Your task to perform on an android device: find photos in the google photos app Image 0: 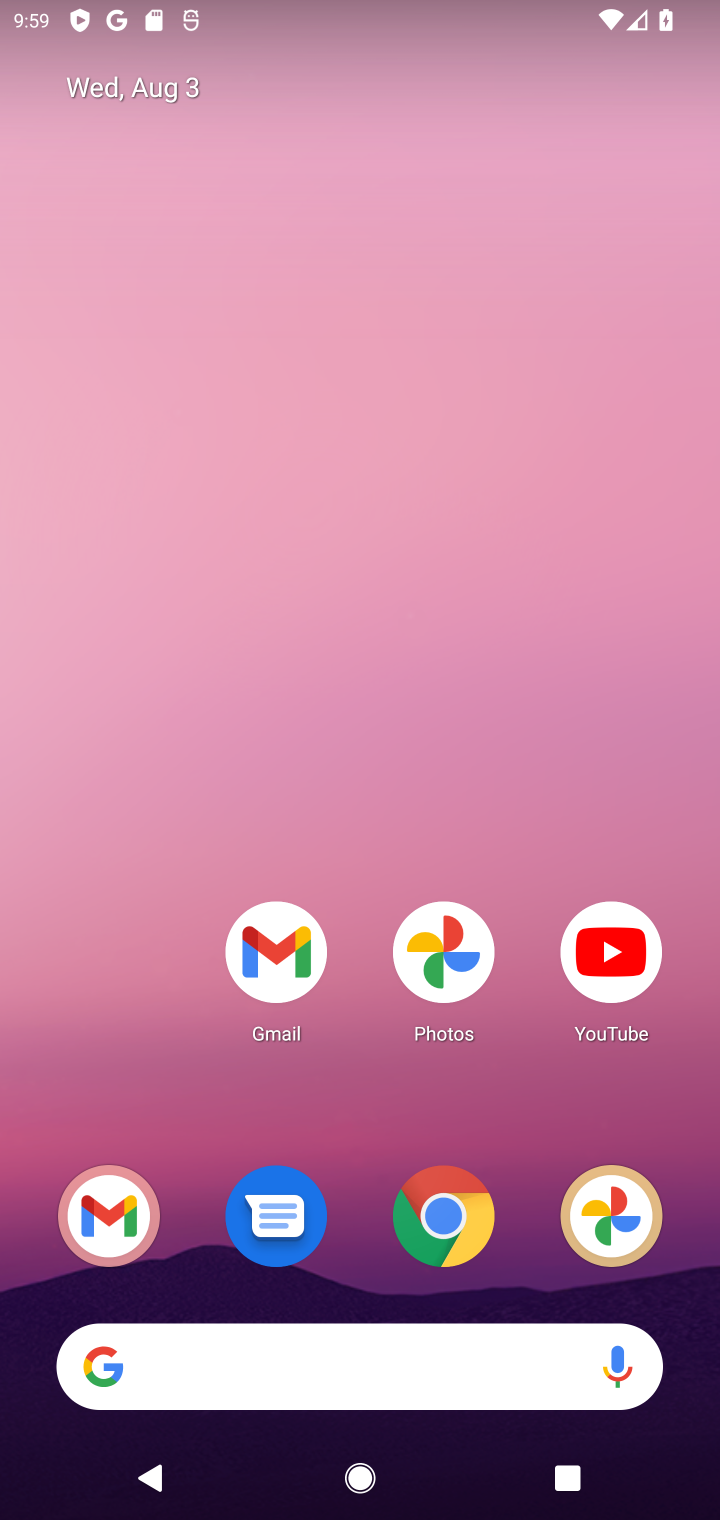
Step 0: click (631, 1225)
Your task to perform on an android device: find photos in the google photos app Image 1: 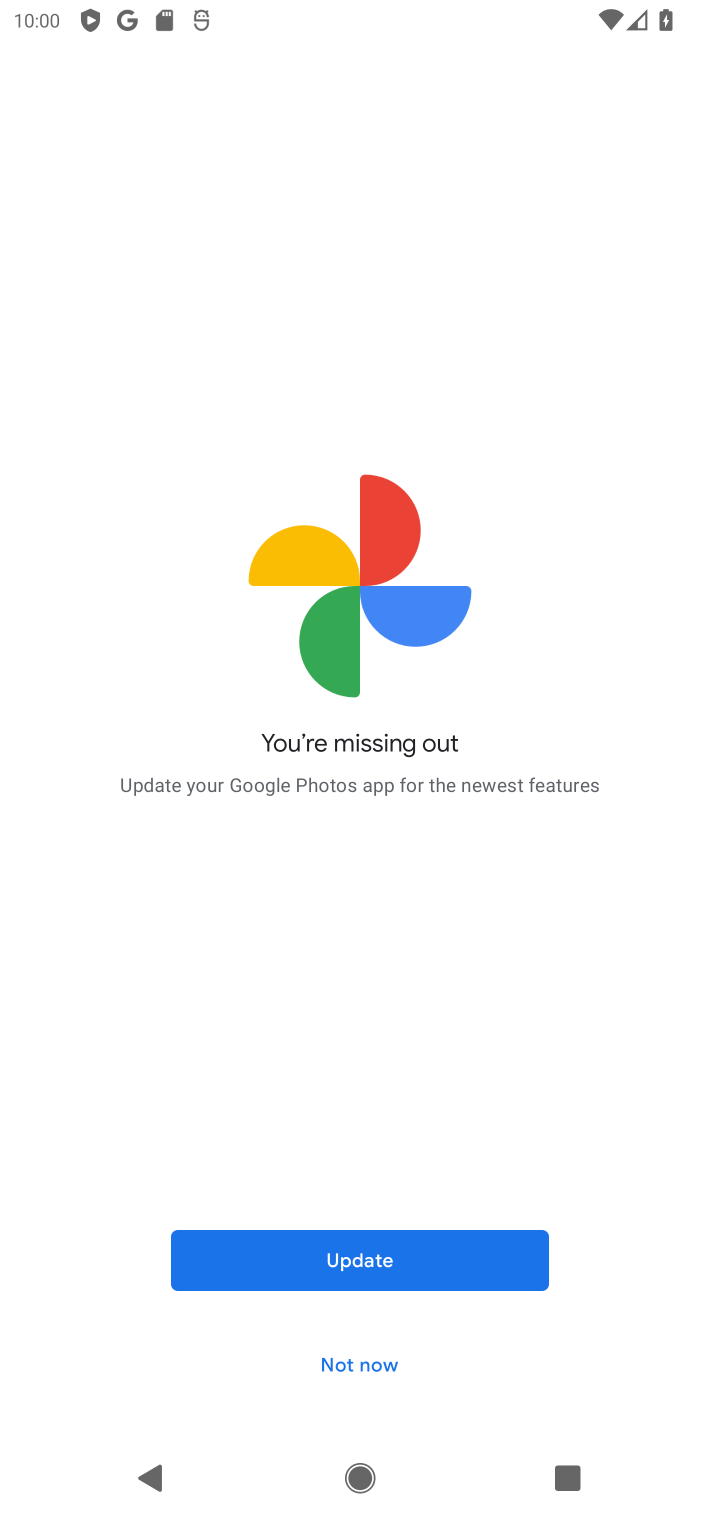
Step 1: click (365, 1349)
Your task to perform on an android device: find photos in the google photos app Image 2: 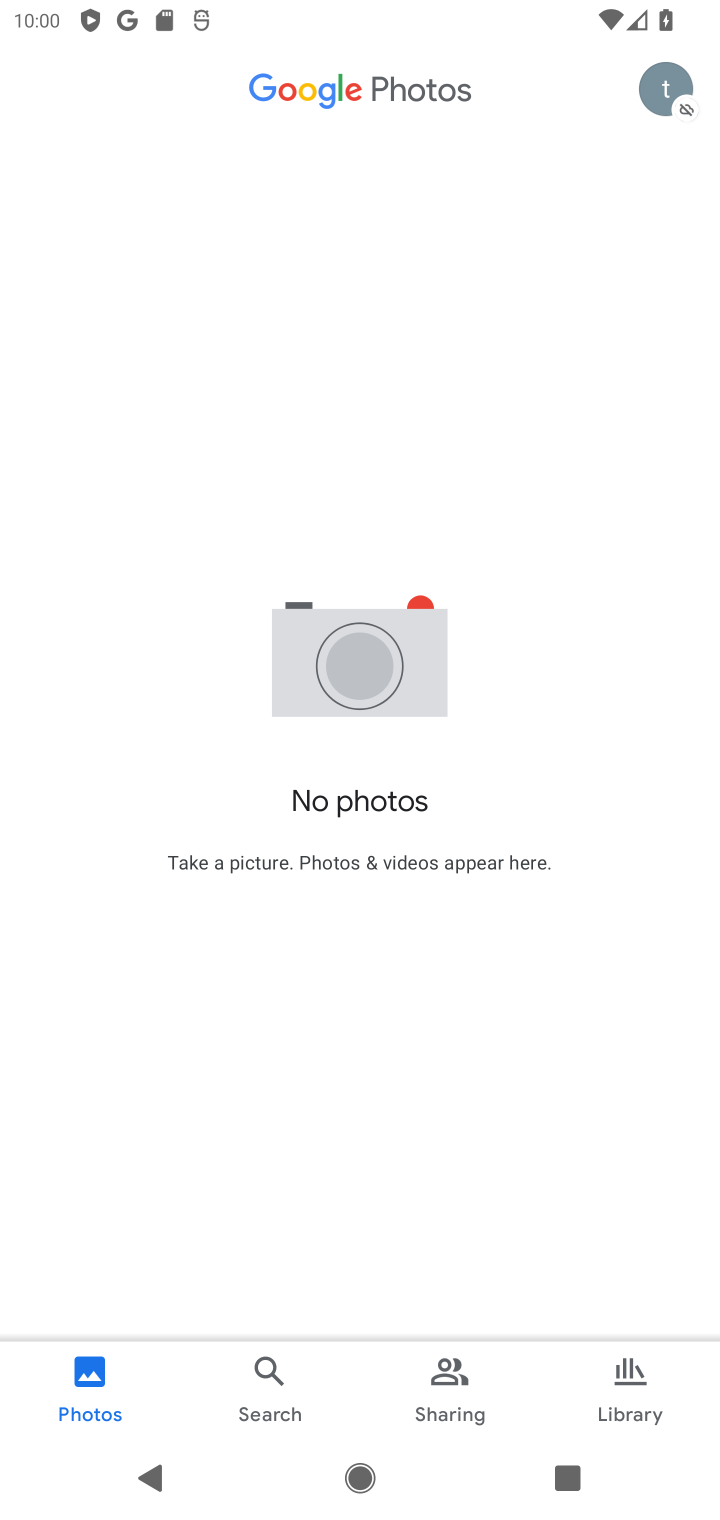
Step 2: click (81, 1406)
Your task to perform on an android device: find photos in the google photos app Image 3: 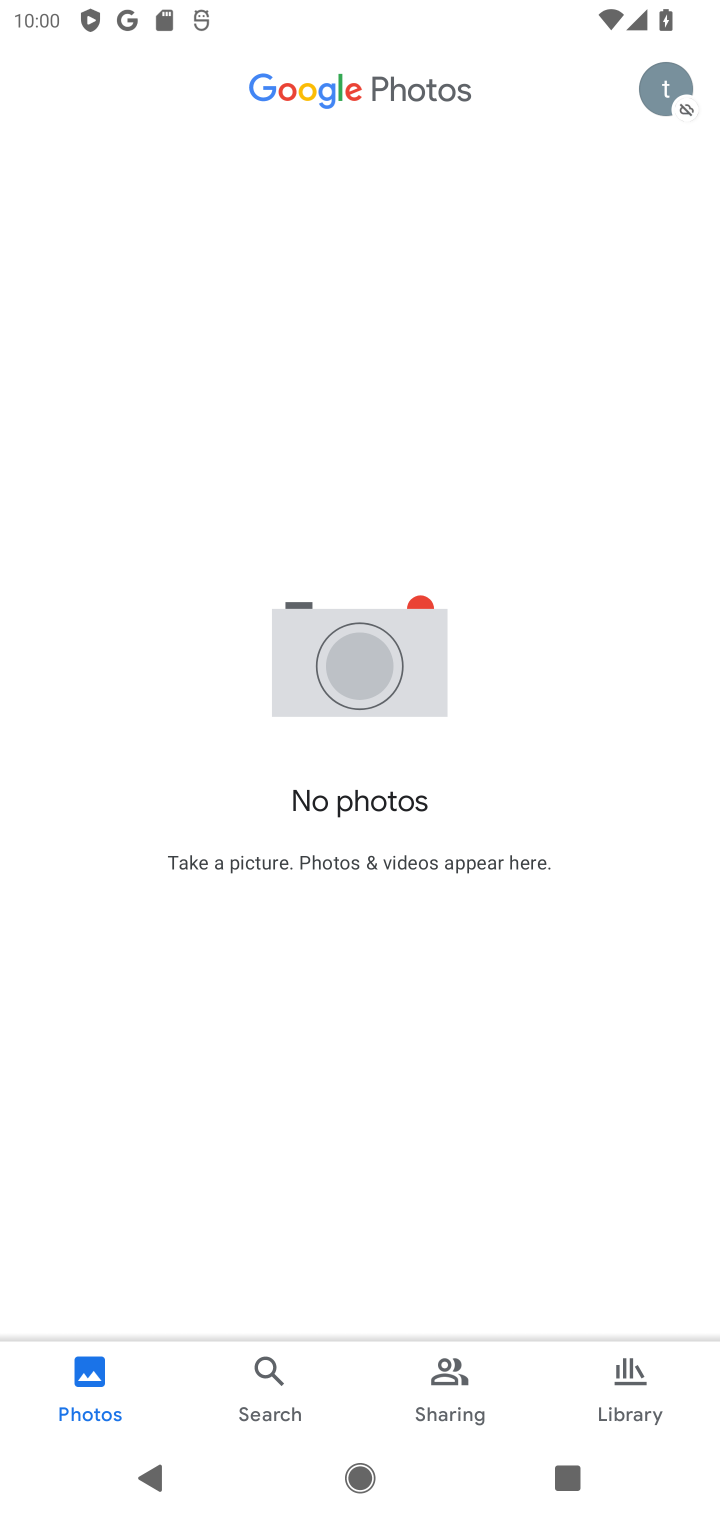
Step 3: task complete